Your task to perform on an android device: Set an alarm for 7pm Image 0: 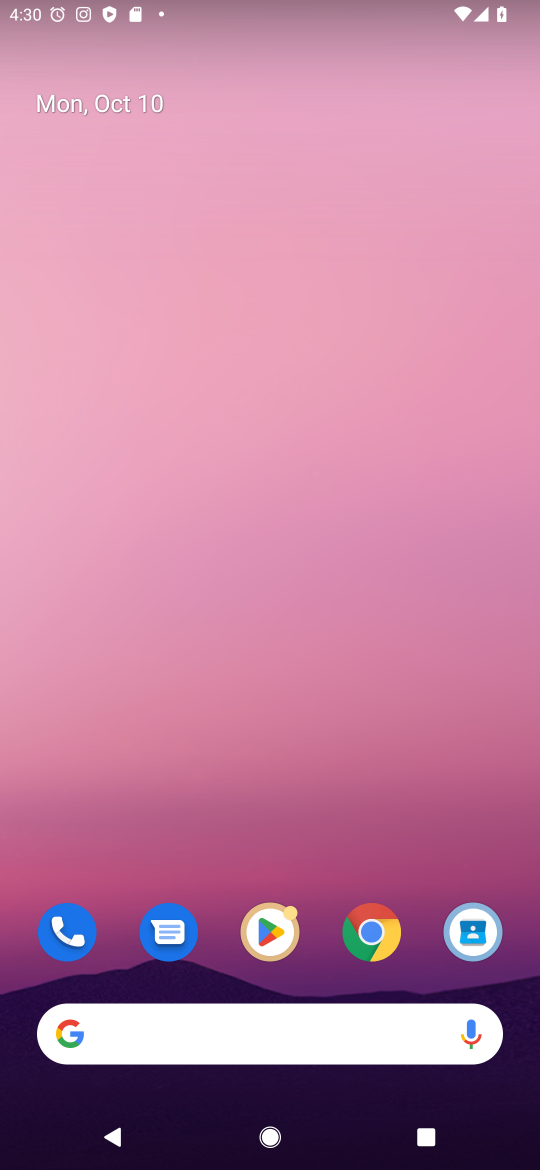
Step 0: press home button
Your task to perform on an android device: Set an alarm for 7pm Image 1: 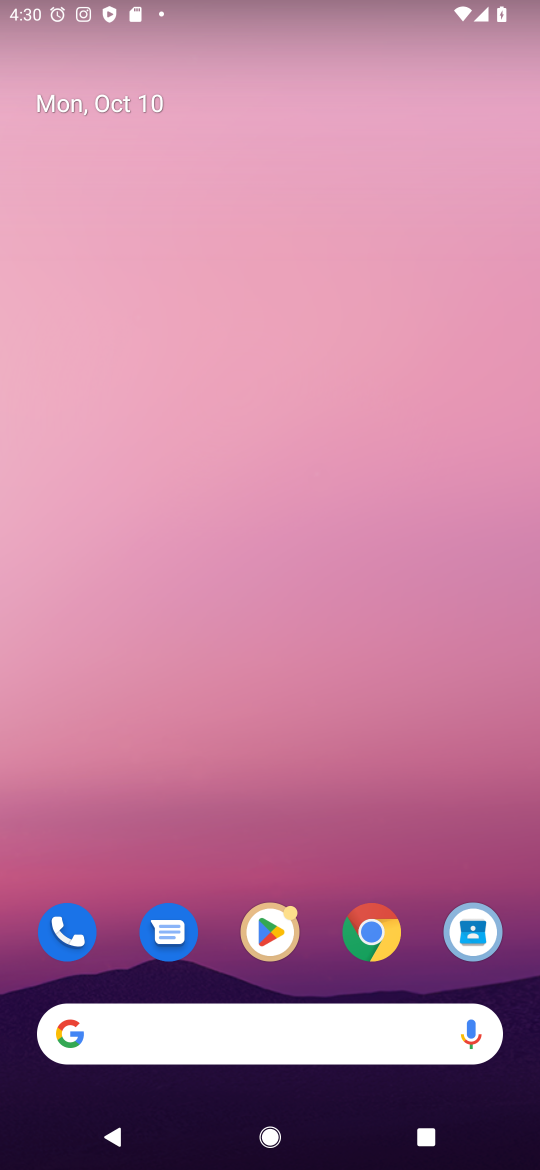
Step 1: drag from (469, 733) to (466, 59)
Your task to perform on an android device: Set an alarm for 7pm Image 2: 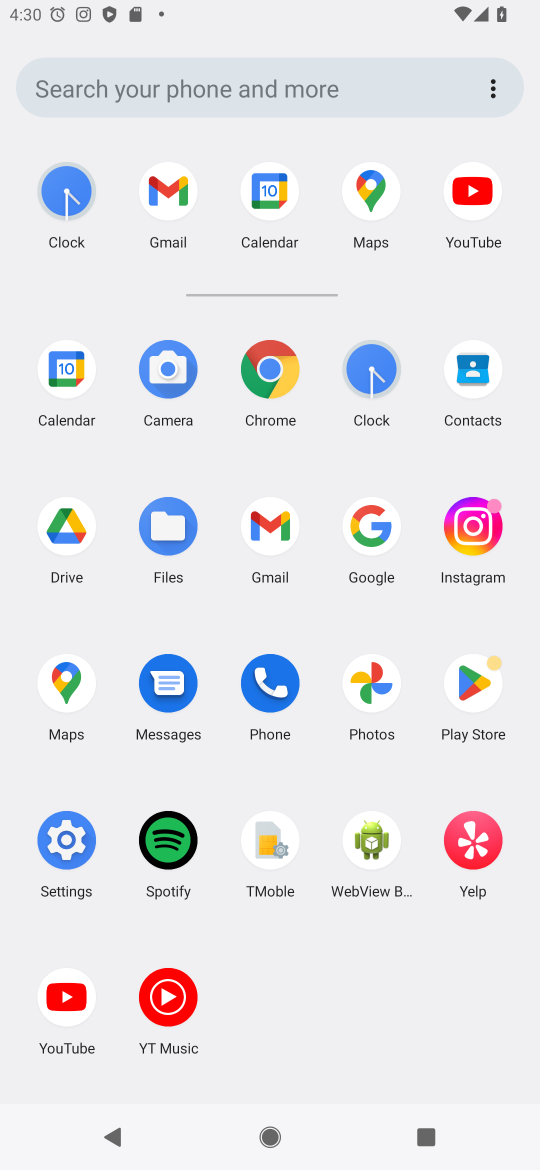
Step 2: click (65, 209)
Your task to perform on an android device: Set an alarm for 7pm Image 3: 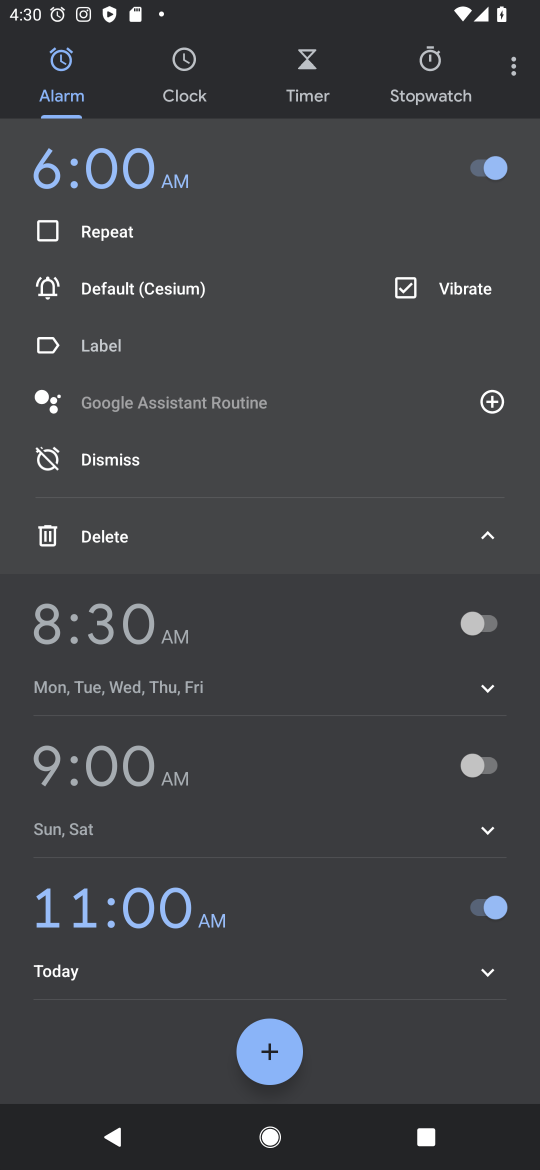
Step 3: click (269, 1056)
Your task to perform on an android device: Set an alarm for 7pm Image 4: 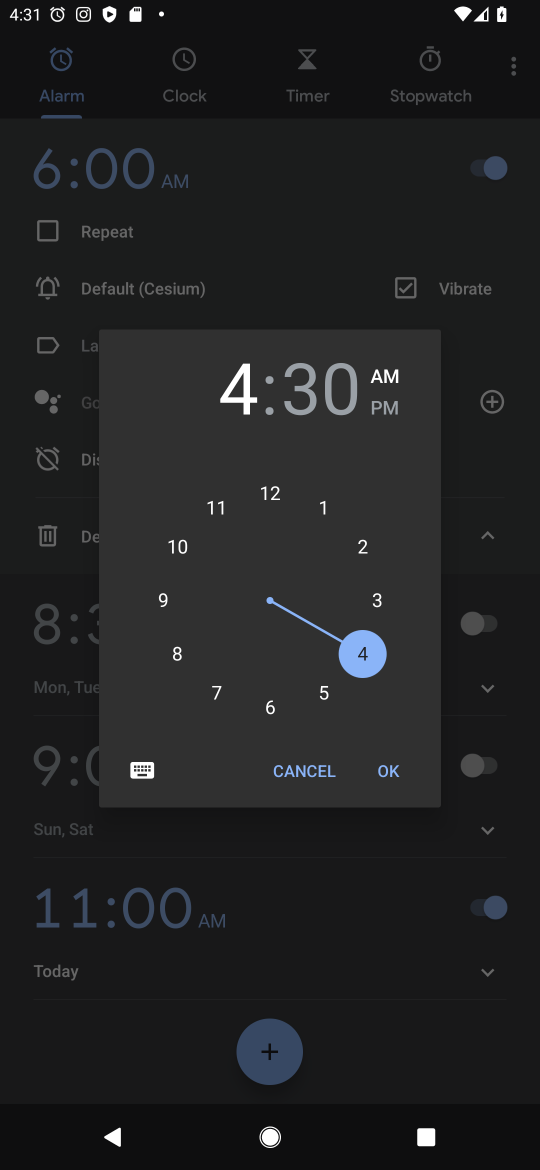
Step 4: click (215, 689)
Your task to perform on an android device: Set an alarm for 7pm Image 5: 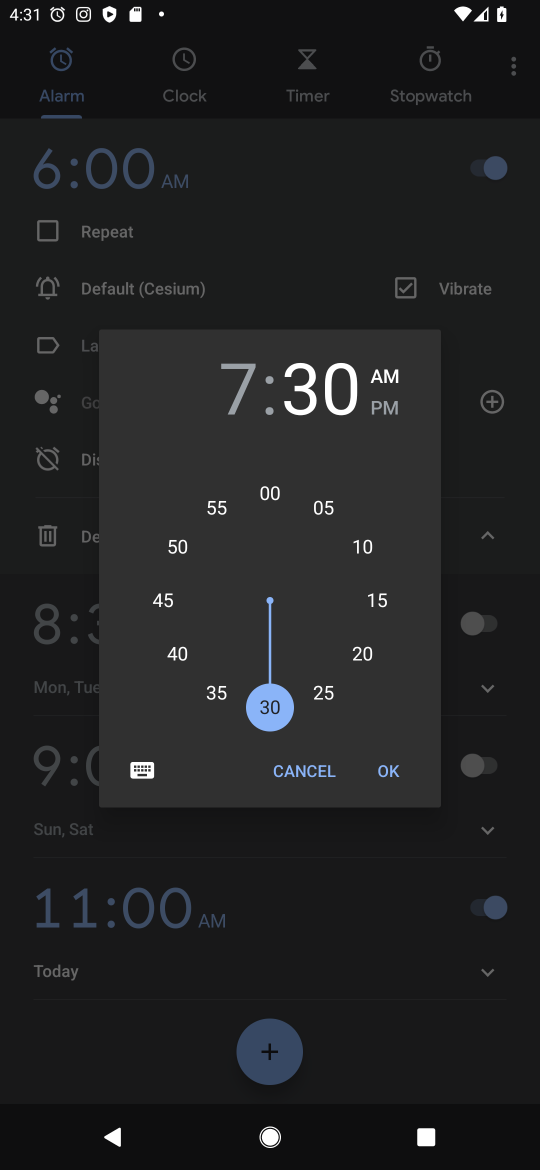
Step 5: click (264, 502)
Your task to perform on an android device: Set an alarm for 7pm Image 6: 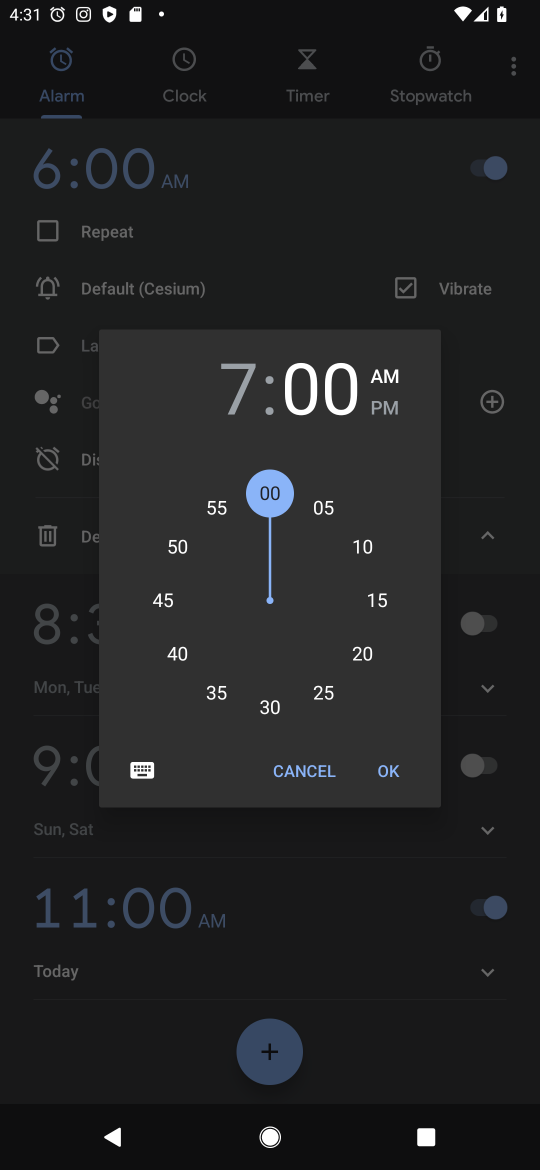
Step 6: click (389, 772)
Your task to perform on an android device: Set an alarm for 7pm Image 7: 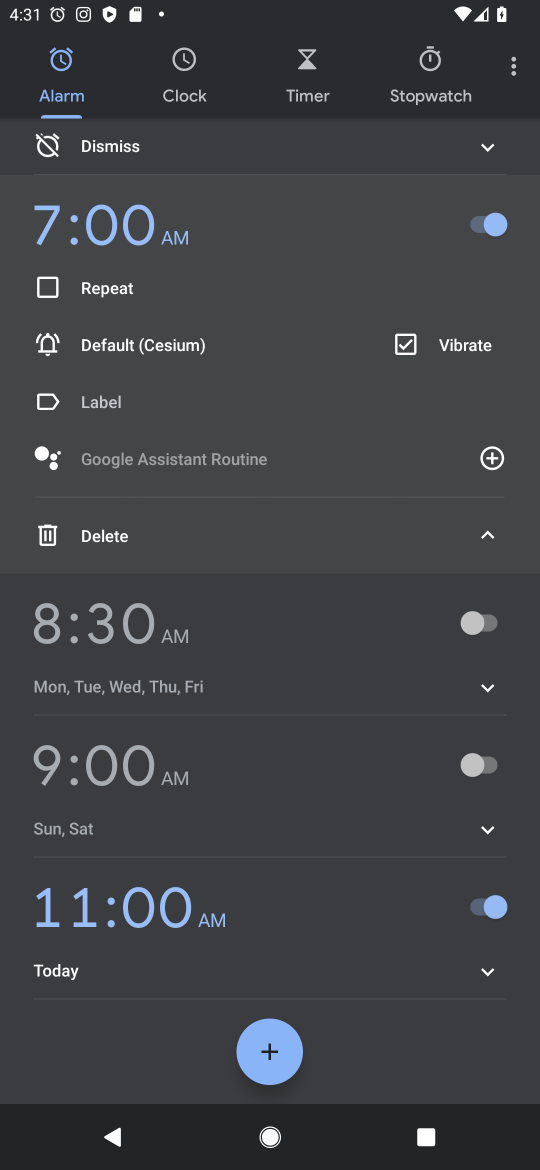
Step 7: task complete